Your task to perform on an android device: find which apps use the phone's location Image 0: 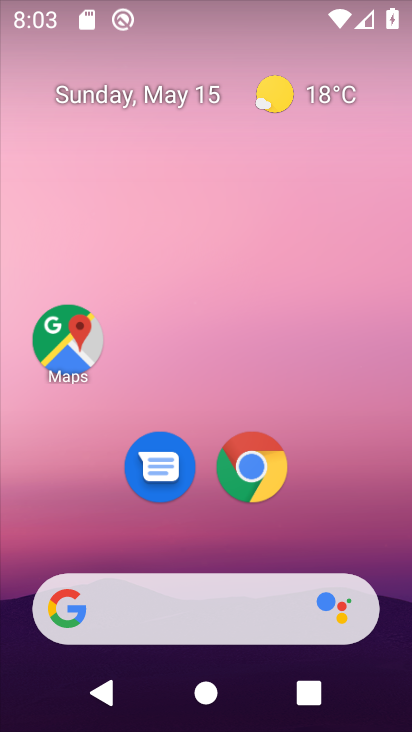
Step 0: drag from (169, 547) to (242, 66)
Your task to perform on an android device: find which apps use the phone's location Image 1: 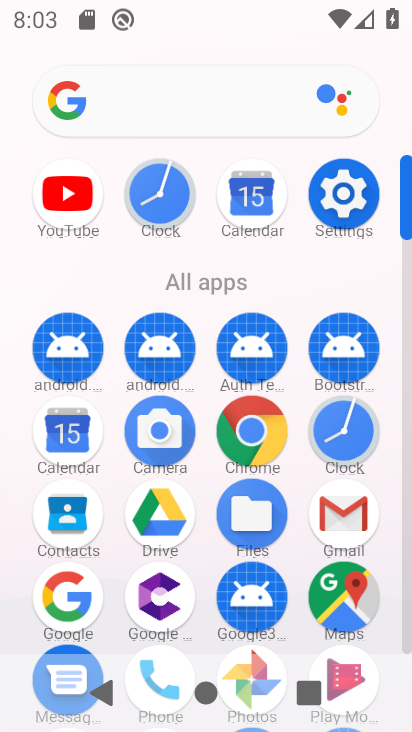
Step 1: click (351, 194)
Your task to perform on an android device: find which apps use the phone's location Image 2: 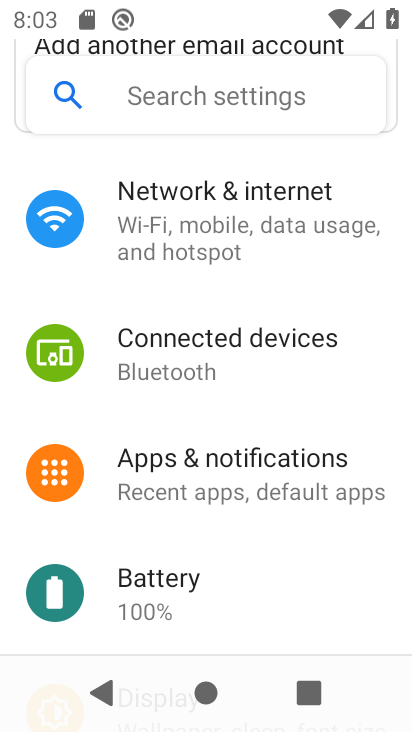
Step 2: drag from (192, 546) to (192, 217)
Your task to perform on an android device: find which apps use the phone's location Image 3: 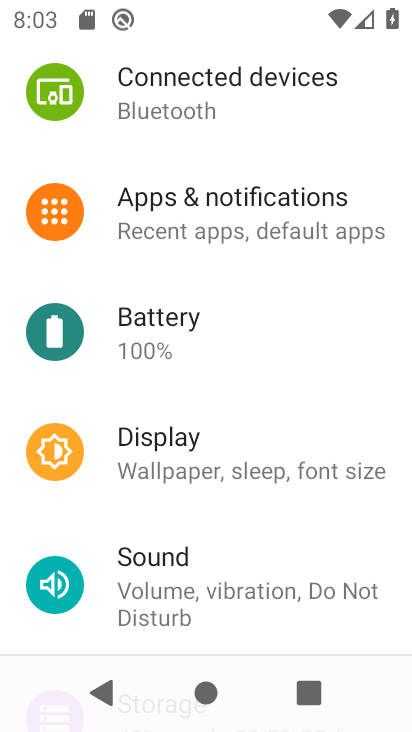
Step 3: drag from (173, 500) to (204, 203)
Your task to perform on an android device: find which apps use the phone's location Image 4: 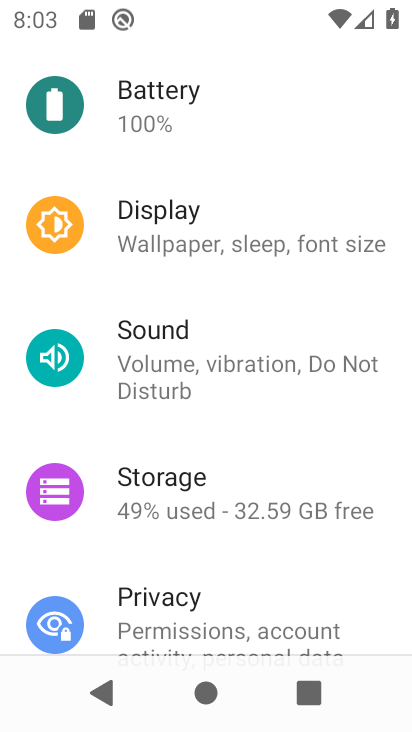
Step 4: drag from (161, 519) to (208, 215)
Your task to perform on an android device: find which apps use the phone's location Image 5: 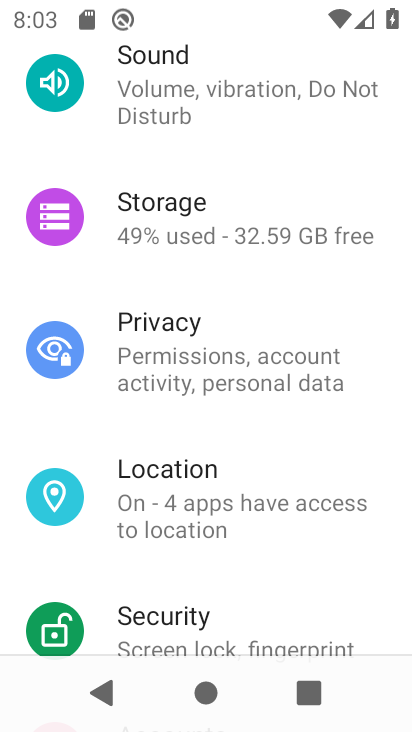
Step 5: click (220, 476)
Your task to perform on an android device: find which apps use the phone's location Image 6: 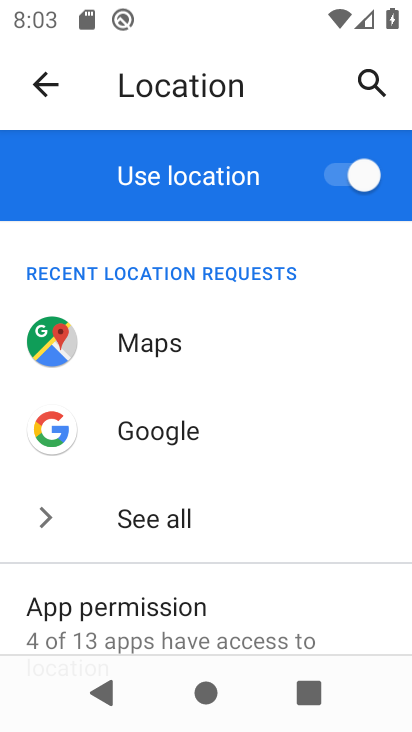
Step 6: click (148, 628)
Your task to perform on an android device: find which apps use the phone's location Image 7: 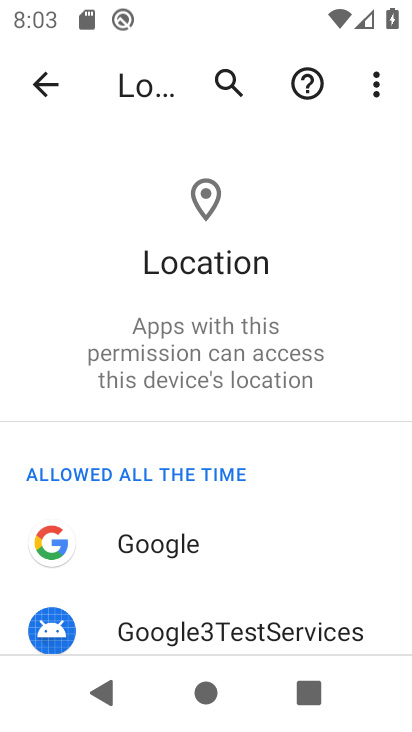
Step 7: task complete